Your task to perform on an android device: What's the weather today? Image 0: 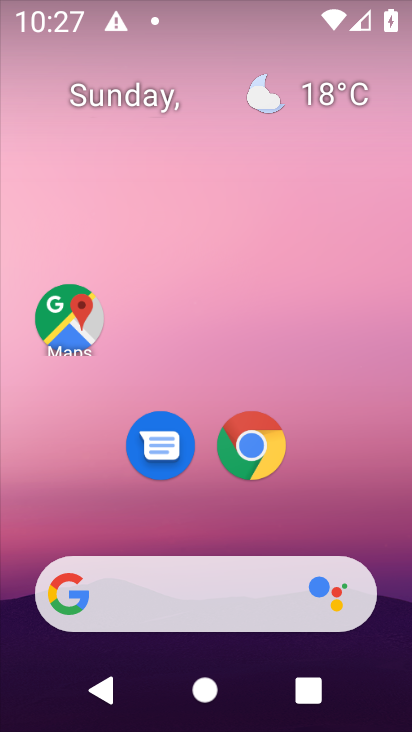
Step 0: click (290, 103)
Your task to perform on an android device: What's the weather today? Image 1: 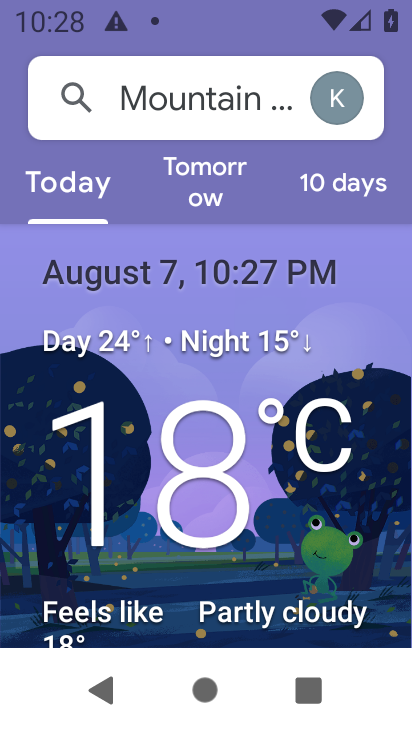
Step 1: task complete